Your task to perform on an android device: set the stopwatch Image 0: 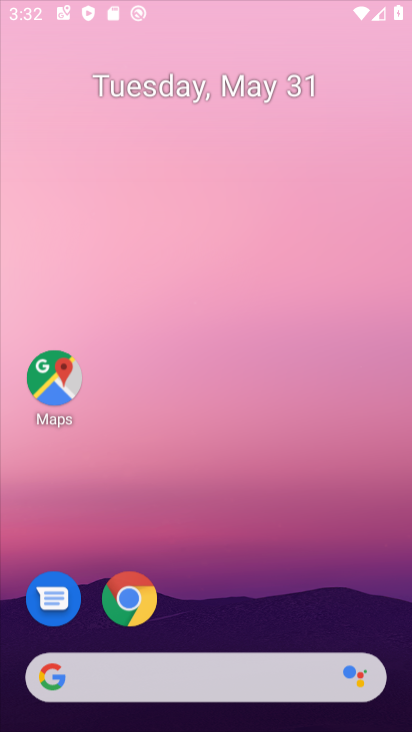
Step 0: press home button
Your task to perform on an android device: set the stopwatch Image 1: 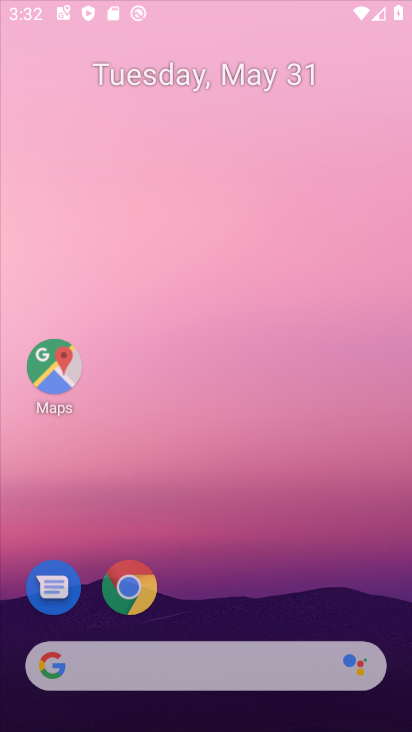
Step 1: drag from (217, 635) to (233, 69)
Your task to perform on an android device: set the stopwatch Image 2: 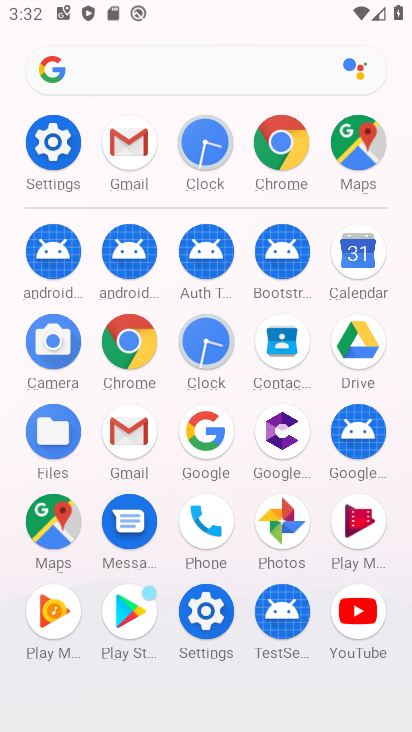
Step 2: click (203, 334)
Your task to perform on an android device: set the stopwatch Image 3: 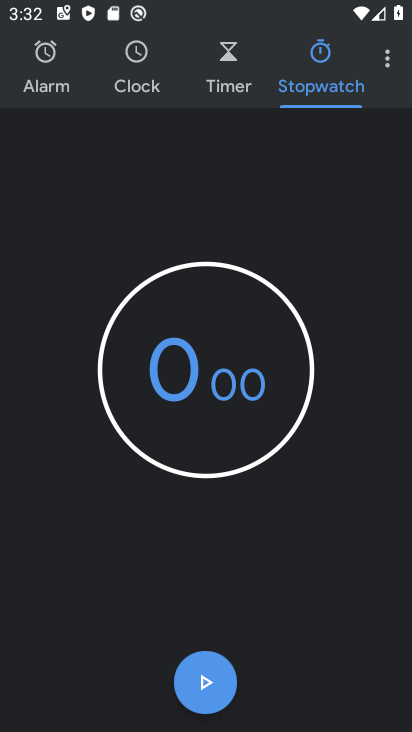
Step 3: click (203, 677)
Your task to perform on an android device: set the stopwatch Image 4: 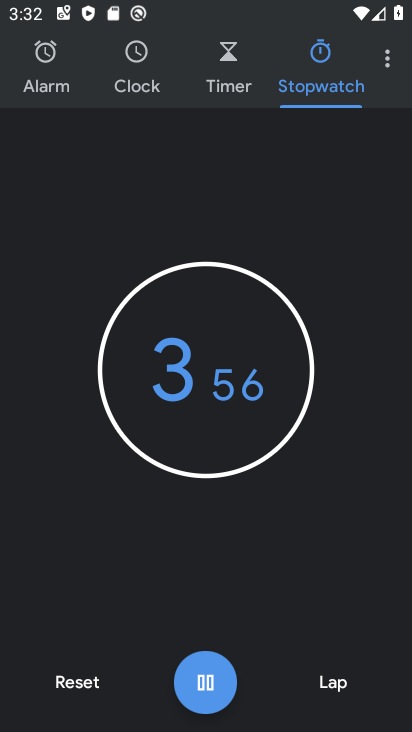
Step 4: click (90, 678)
Your task to perform on an android device: set the stopwatch Image 5: 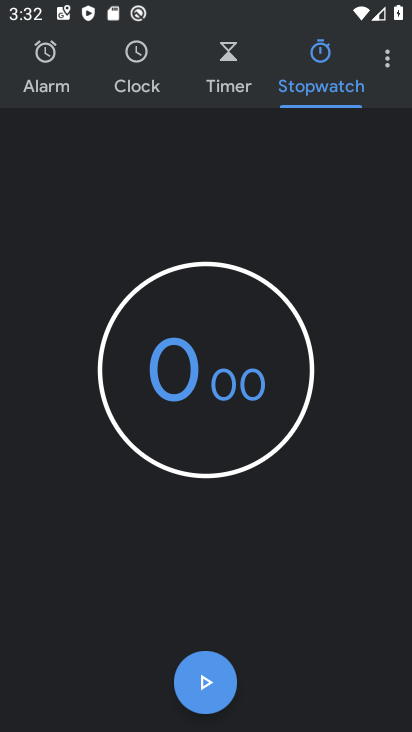
Step 5: task complete